Your task to perform on an android device: toggle javascript in the chrome app Image 0: 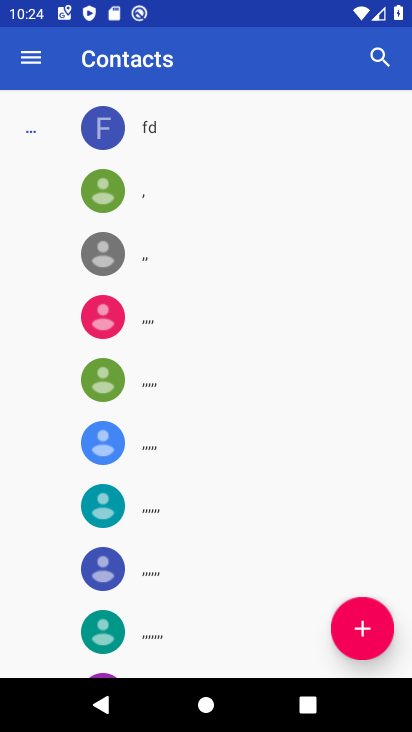
Step 0: press home button
Your task to perform on an android device: toggle javascript in the chrome app Image 1: 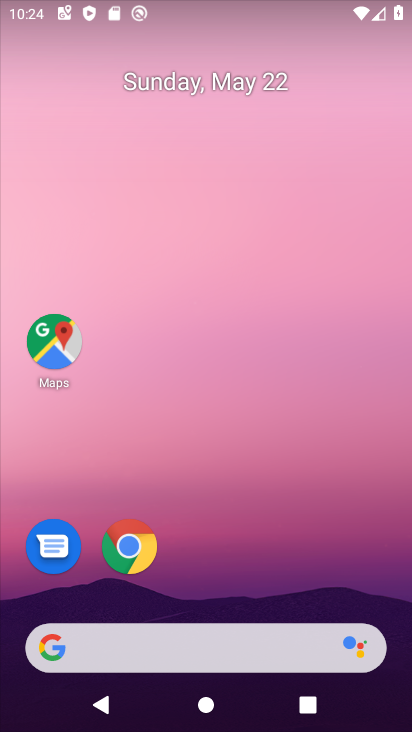
Step 1: click (140, 548)
Your task to perform on an android device: toggle javascript in the chrome app Image 2: 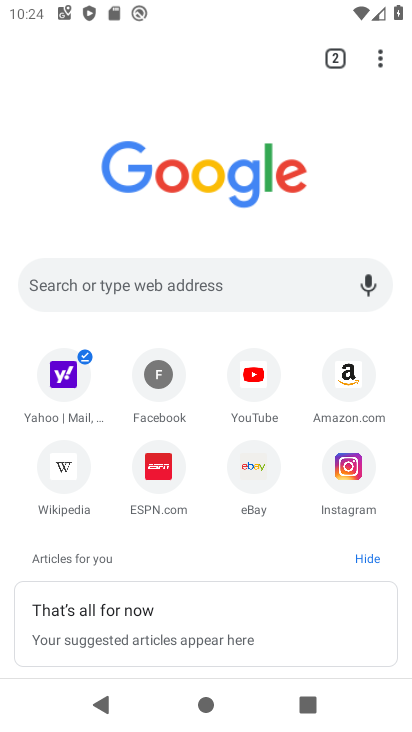
Step 2: click (371, 60)
Your task to perform on an android device: toggle javascript in the chrome app Image 3: 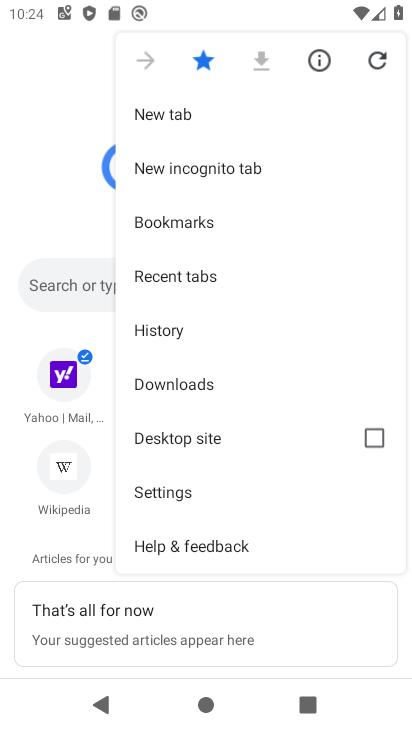
Step 3: click (173, 490)
Your task to perform on an android device: toggle javascript in the chrome app Image 4: 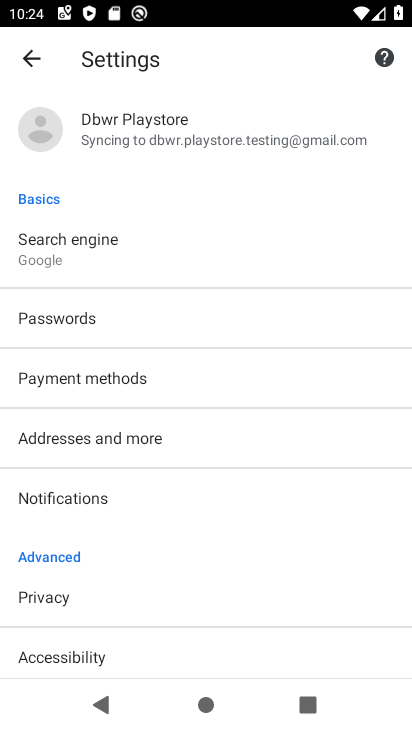
Step 4: drag from (88, 649) to (107, 383)
Your task to perform on an android device: toggle javascript in the chrome app Image 5: 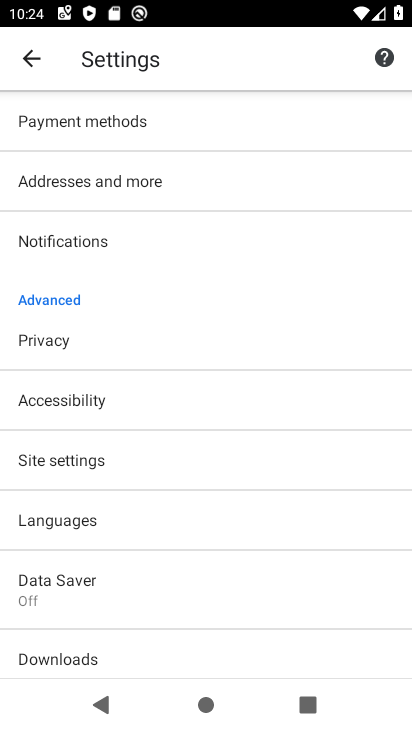
Step 5: click (81, 455)
Your task to perform on an android device: toggle javascript in the chrome app Image 6: 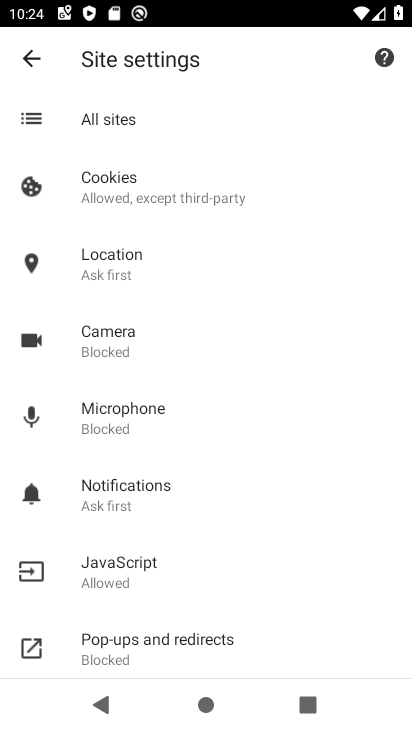
Step 6: click (147, 570)
Your task to perform on an android device: toggle javascript in the chrome app Image 7: 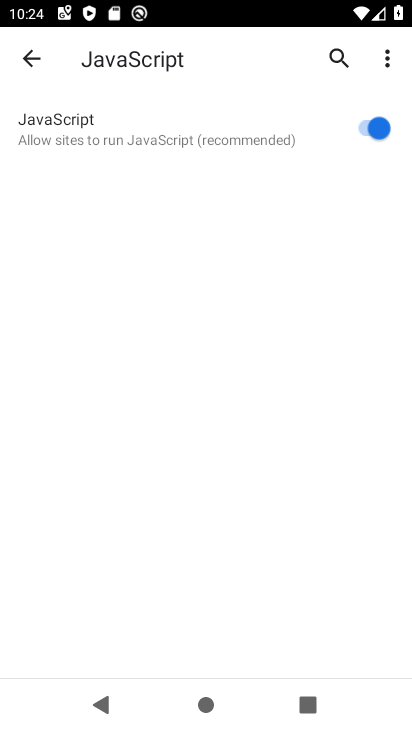
Step 7: click (353, 129)
Your task to perform on an android device: toggle javascript in the chrome app Image 8: 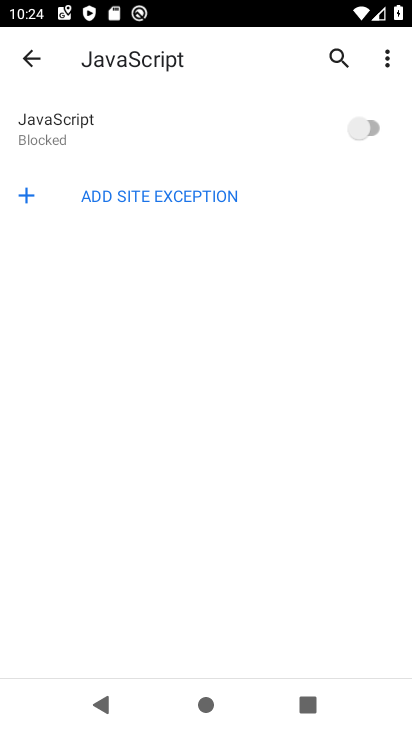
Step 8: task complete